Your task to perform on an android device: Search for the best rated circular saw on Lowes.com Image 0: 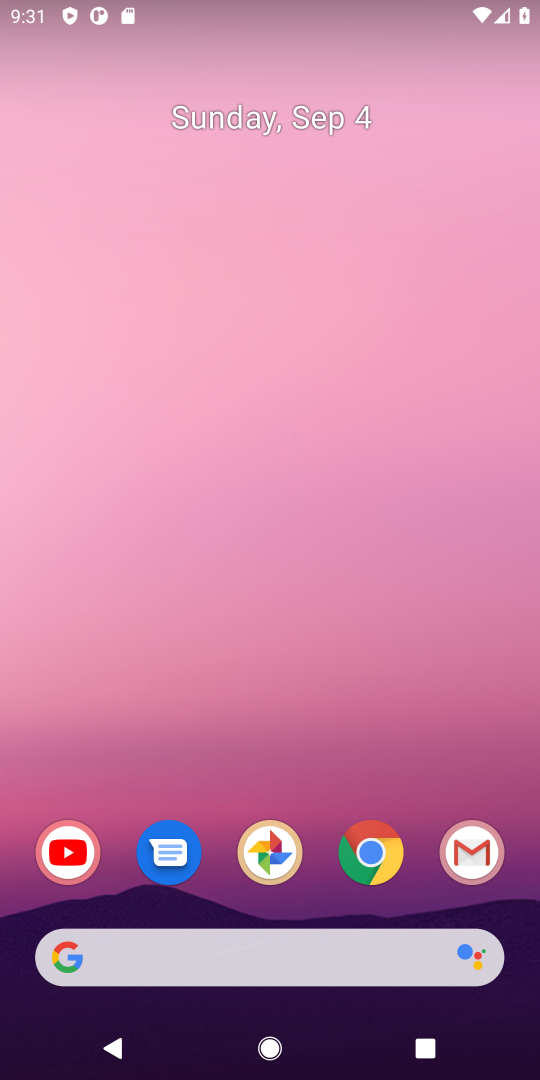
Step 0: drag from (382, 175) to (331, 56)
Your task to perform on an android device: Search for the best rated circular saw on Lowes.com Image 1: 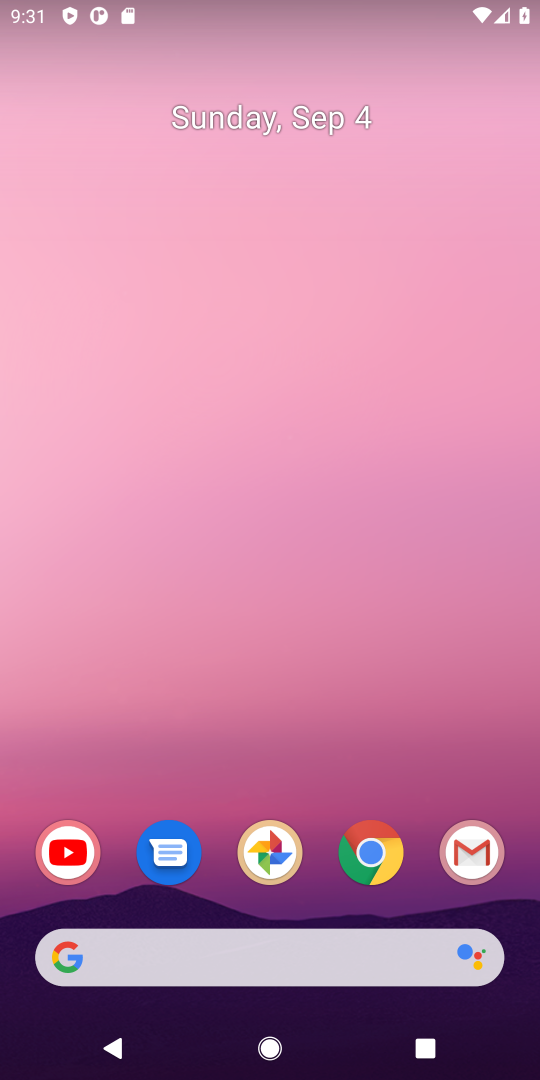
Step 1: drag from (282, 220) to (42, 0)
Your task to perform on an android device: Search for the best rated circular saw on Lowes.com Image 2: 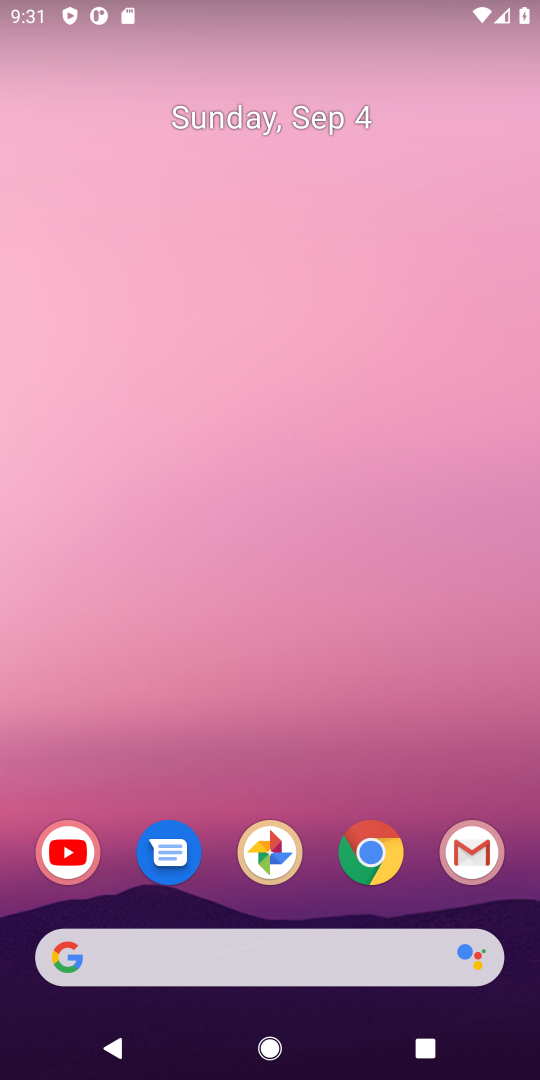
Step 2: drag from (423, 616) to (219, 2)
Your task to perform on an android device: Search for the best rated circular saw on Lowes.com Image 3: 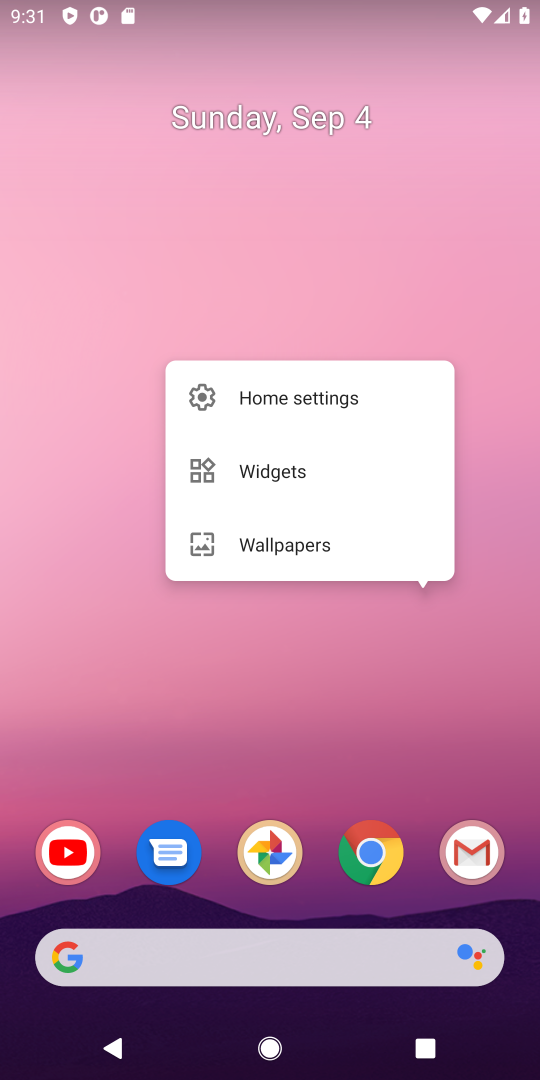
Step 3: click (339, 273)
Your task to perform on an android device: Search for the best rated circular saw on Lowes.com Image 4: 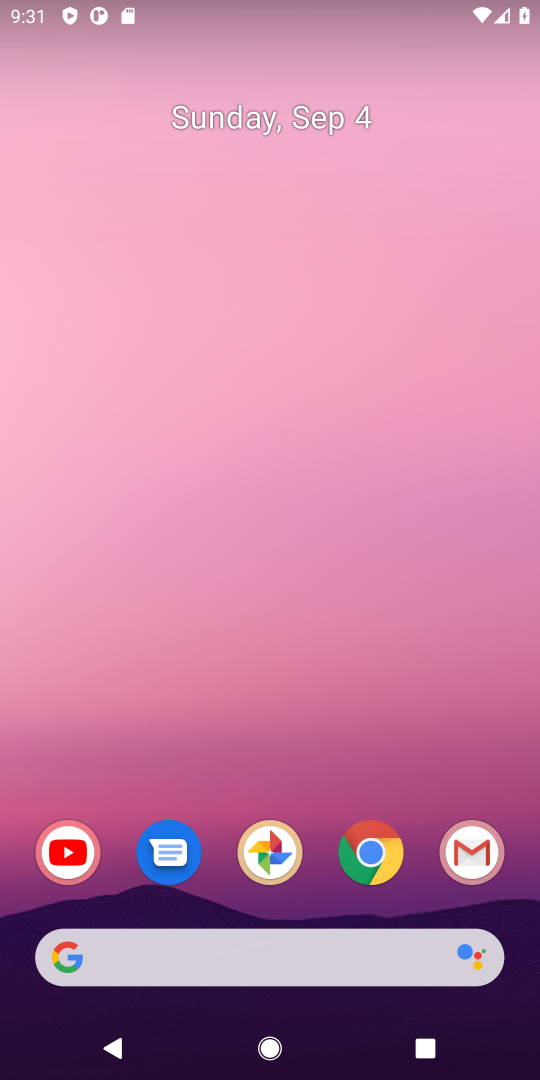
Step 4: drag from (422, 808) to (392, 400)
Your task to perform on an android device: Search for the best rated circular saw on Lowes.com Image 5: 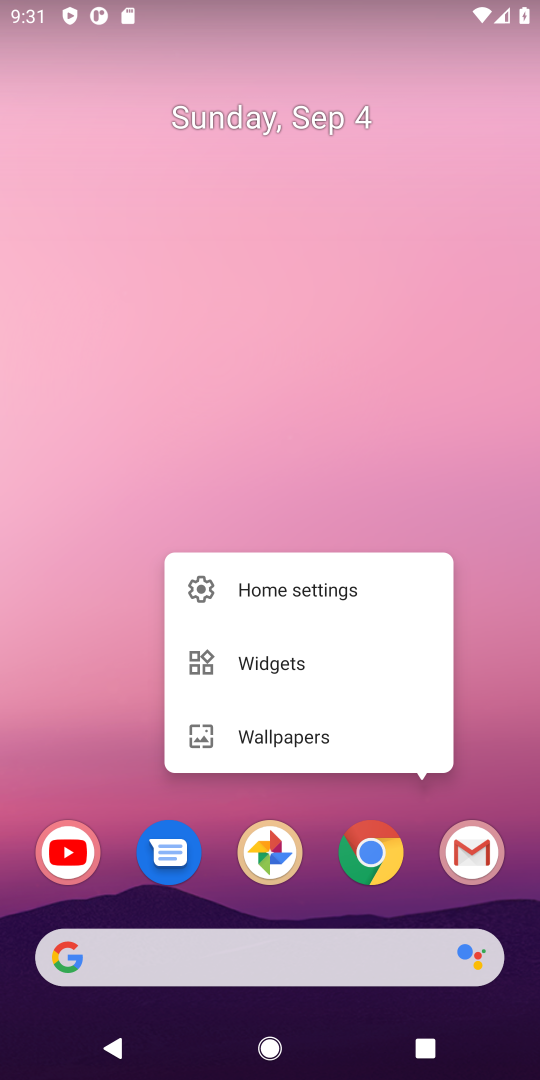
Step 5: click (523, 664)
Your task to perform on an android device: Search for the best rated circular saw on Lowes.com Image 6: 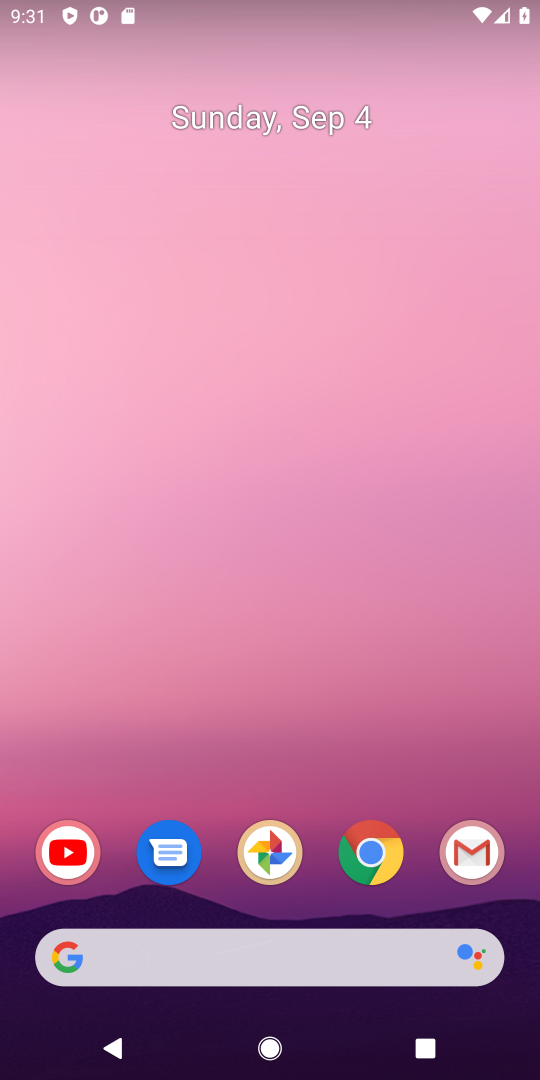
Step 6: drag from (522, 899) to (317, 4)
Your task to perform on an android device: Search for the best rated circular saw on Lowes.com Image 7: 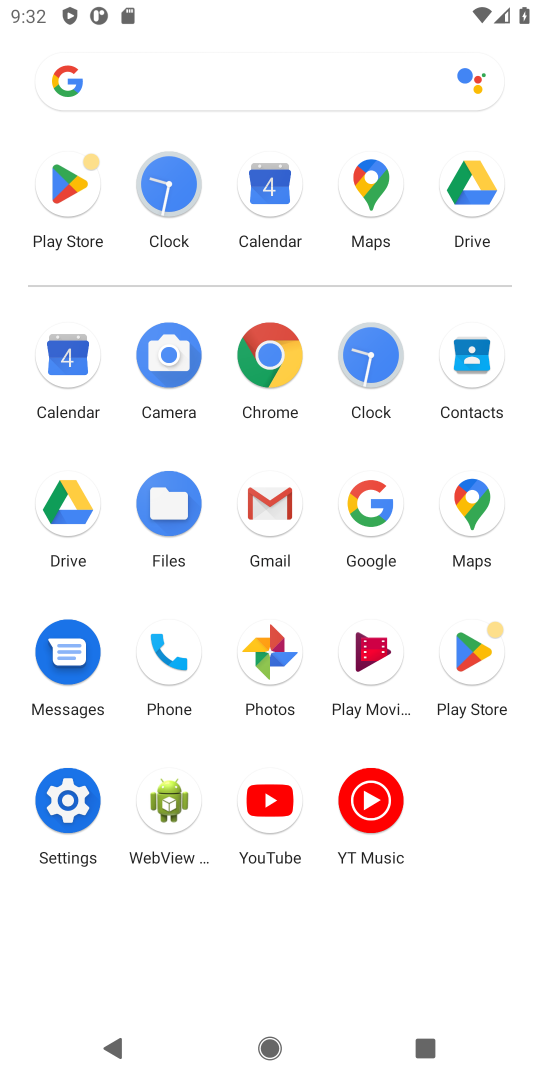
Step 7: click (351, 512)
Your task to perform on an android device: Search for the best rated circular saw on Lowes.com Image 8: 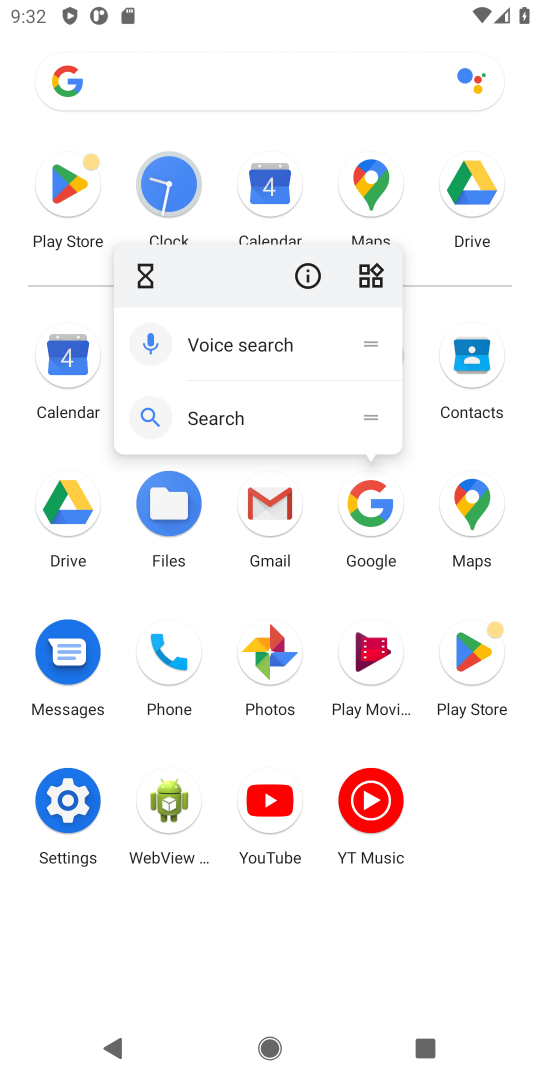
Step 8: click (351, 514)
Your task to perform on an android device: Search for the best rated circular saw on Lowes.com Image 9: 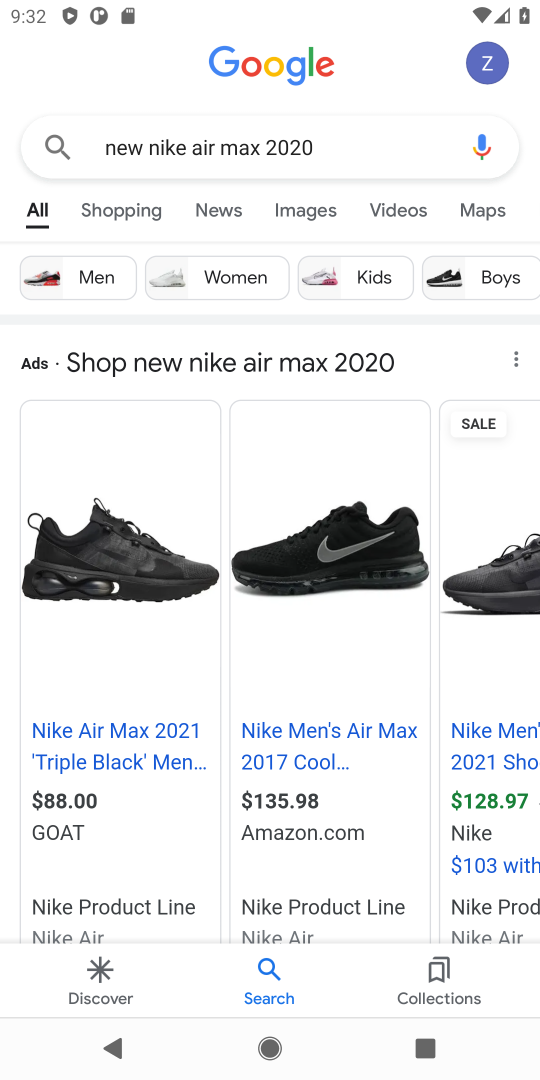
Step 9: press back button
Your task to perform on an android device: Search for the best rated circular saw on Lowes.com Image 10: 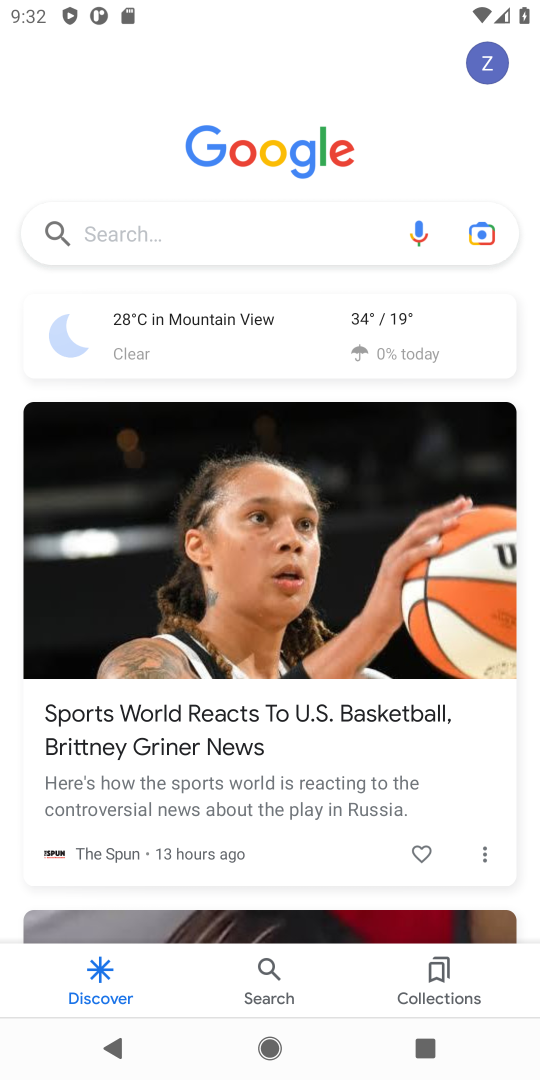
Step 10: click (235, 219)
Your task to perform on an android device: Search for the best rated circular saw on Lowes.com Image 11: 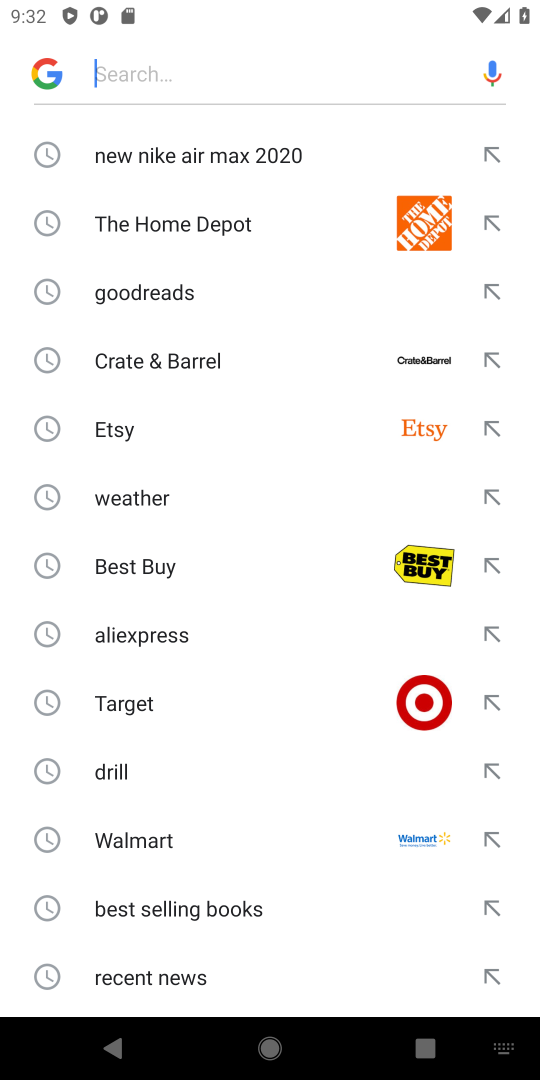
Step 11: type "best rated circular saw on Lowes.com"
Your task to perform on an android device: Search for the best rated circular saw on Lowes.com Image 12: 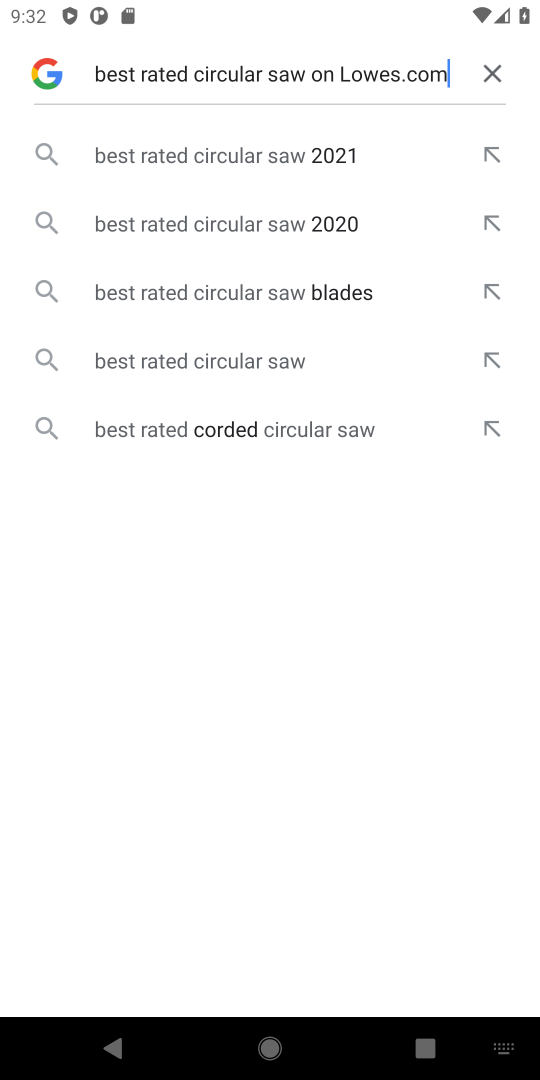
Step 12: click (148, 360)
Your task to perform on an android device: Search for the best rated circular saw on Lowes.com Image 13: 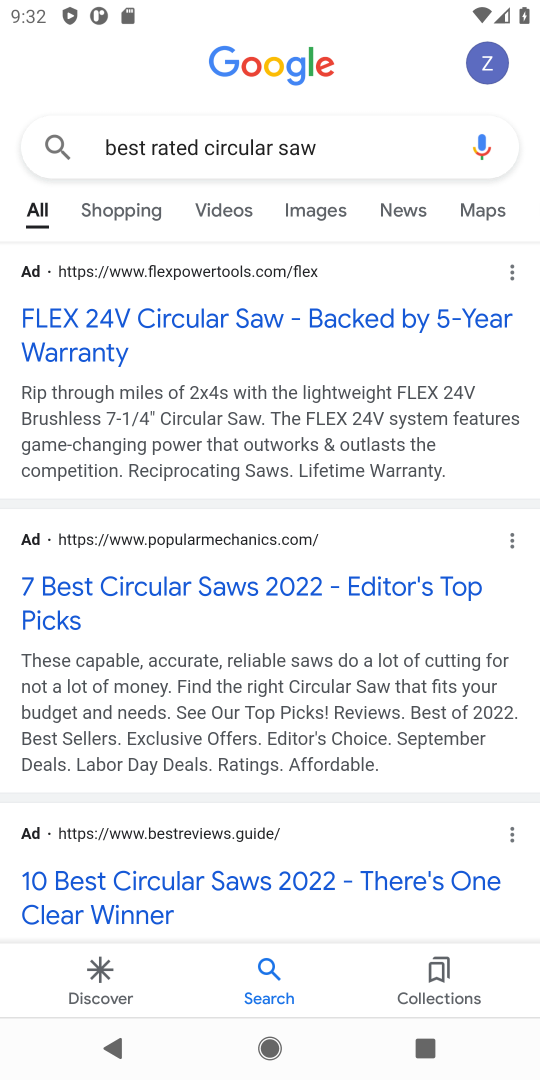
Step 13: task complete